Your task to perform on an android device: Go to calendar. Show me events next week Image 0: 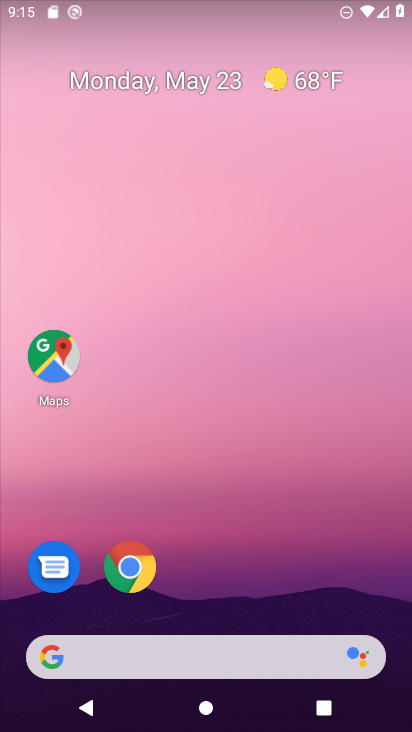
Step 0: drag from (246, 619) to (291, 205)
Your task to perform on an android device: Go to calendar. Show me events next week Image 1: 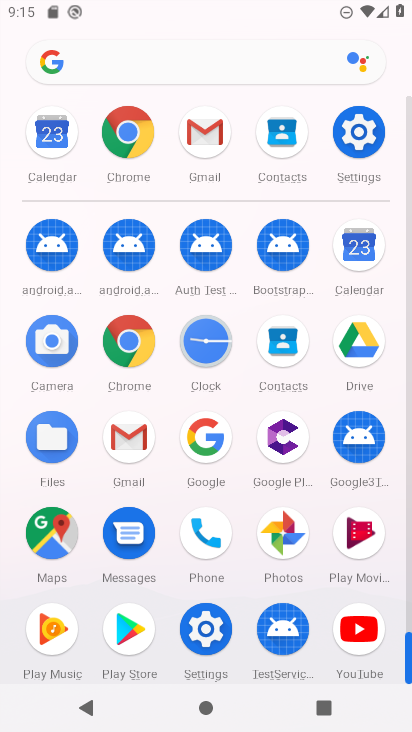
Step 1: click (127, 428)
Your task to perform on an android device: Go to calendar. Show me events next week Image 2: 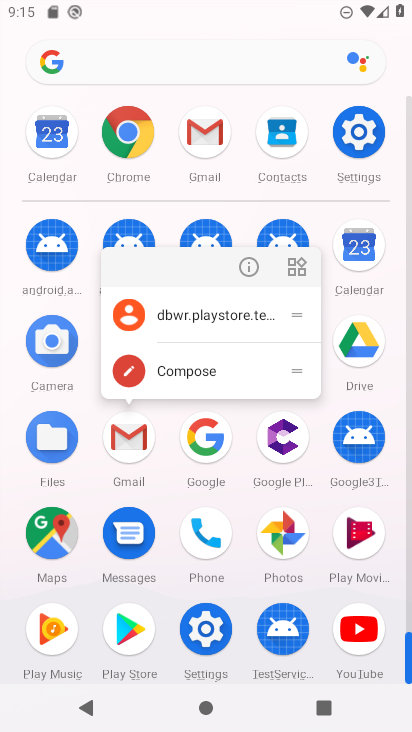
Step 2: click (263, 261)
Your task to perform on an android device: Go to calendar. Show me events next week Image 3: 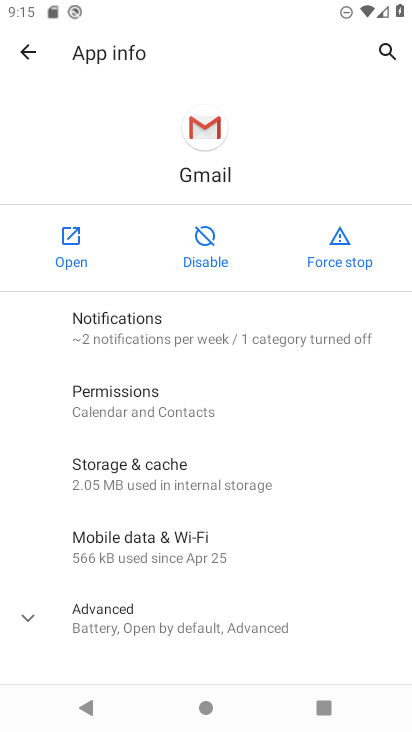
Step 3: click (82, 245)
Your task to perform on an android device: Go to calendar. Show me events next week Image 4: 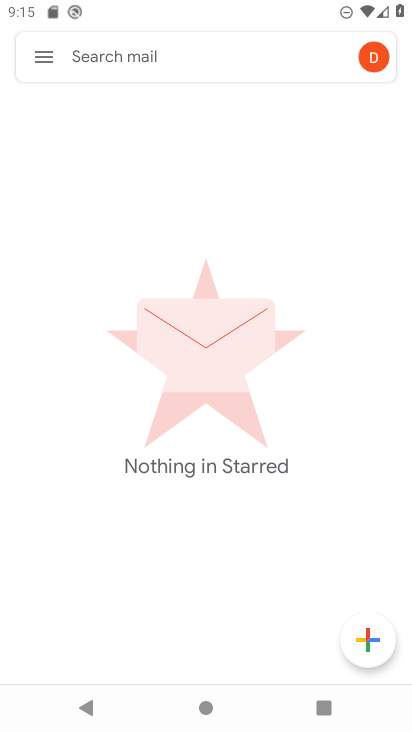
Step 4: press home button
Your task to perform on an android device: Go to calendar. Show me events next week Image 5: 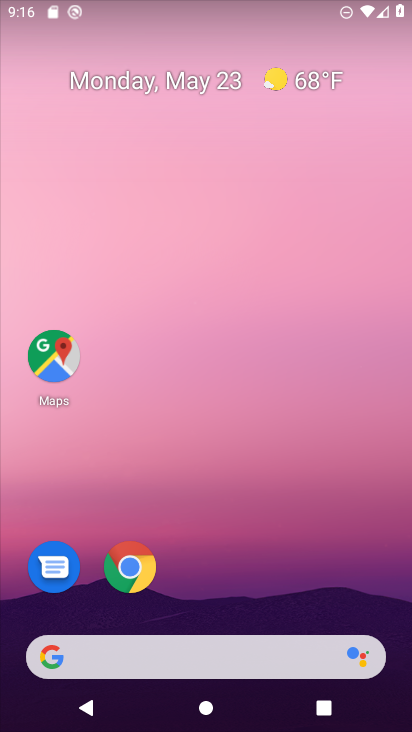
Step 5: drag from (196, 589) to (247, 66)
Your task to perform on an android device: Go to calendar. Show me events next week Image 6: 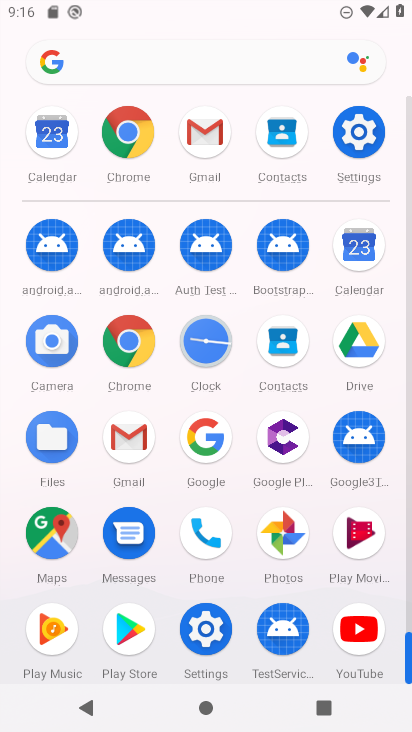
Step 6: click (362, 244)
Your task to perform on an android device: Go to calendar. Show me events next week Image 7: 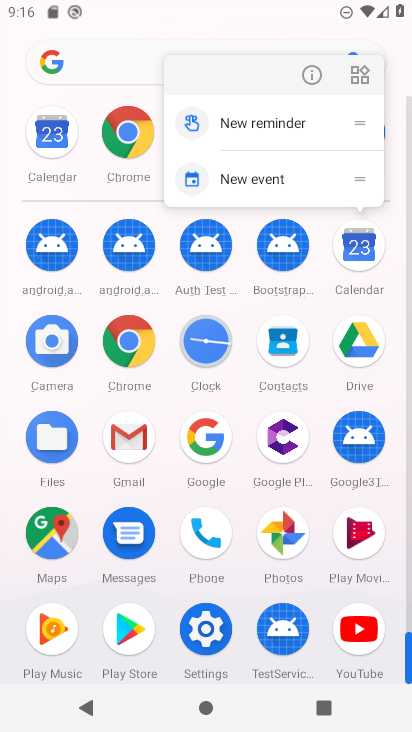
Step 7: click (308, 62)
Your task to perform on an android device: Go to calendar. Show me events next week Image 8: 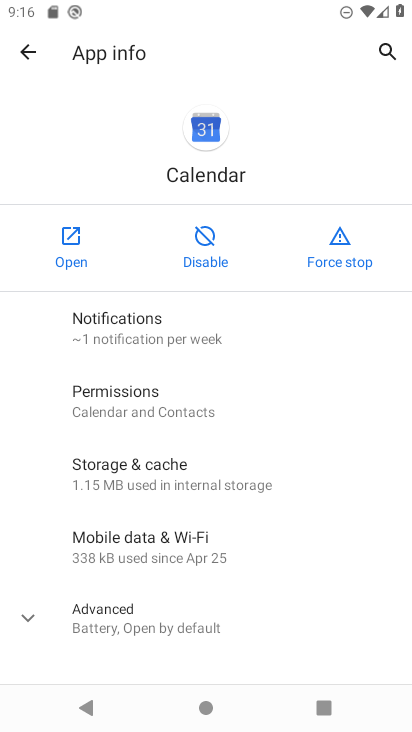
Step 8: click (70, 245)
Your task to perform on an android device: Go to calendar. Show me events next week Image 9: 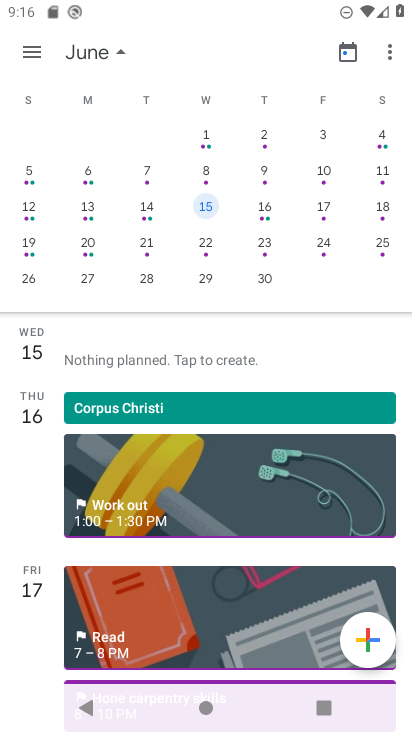
Step 9: drag from (36, 223) to (406, 222)
Your task to perform on an android device: Go to calendar. Show me events next week Image 10: 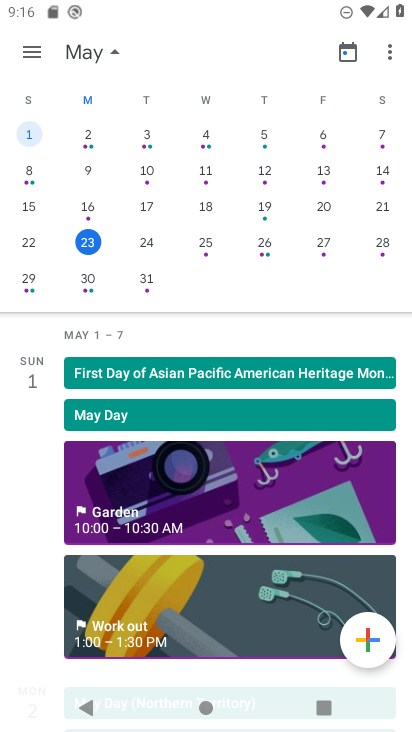
Step 10: click (98, 285)
Your task to perform on an android device: Go to calendar. Show me events next week Image 11: 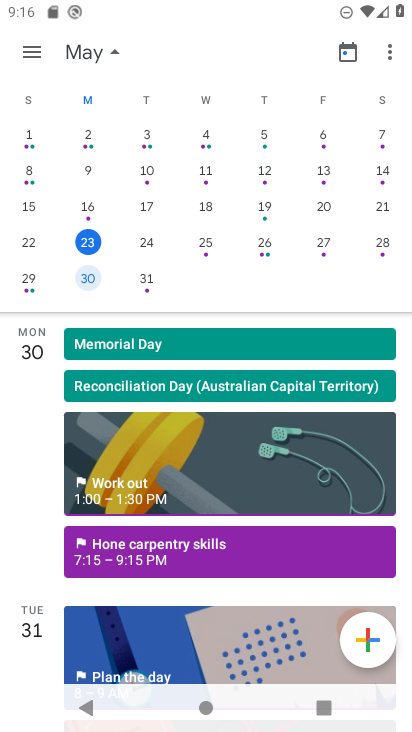
Step 11: task complete